Your task to perform on an android device: turn on translation in the chrome app Image 0: 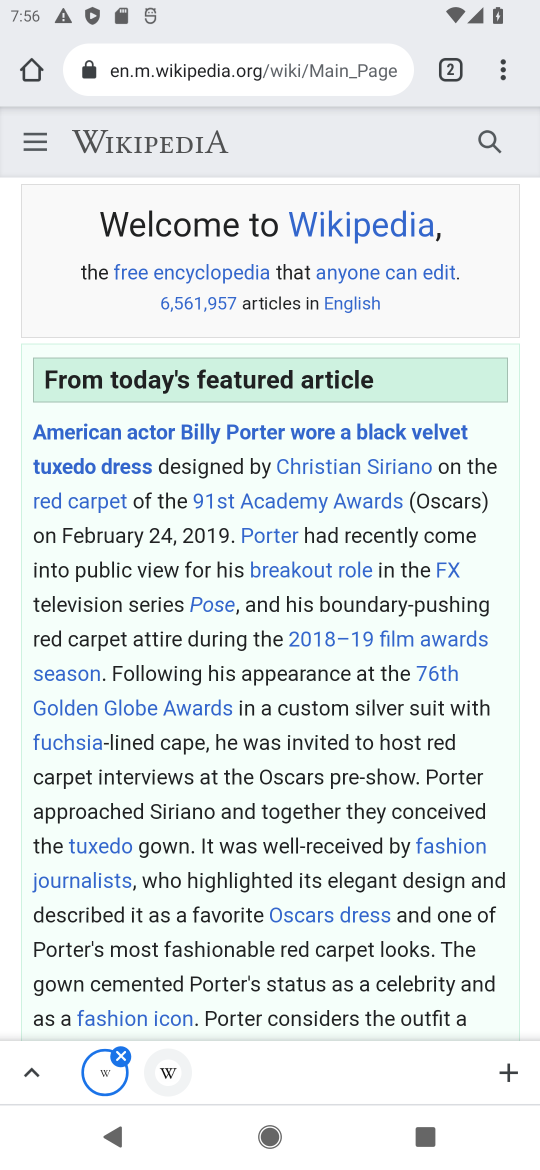
Step 0: click (505, 84)
Your task to perform on an android device: turn on translation in the chrome app Image 1: 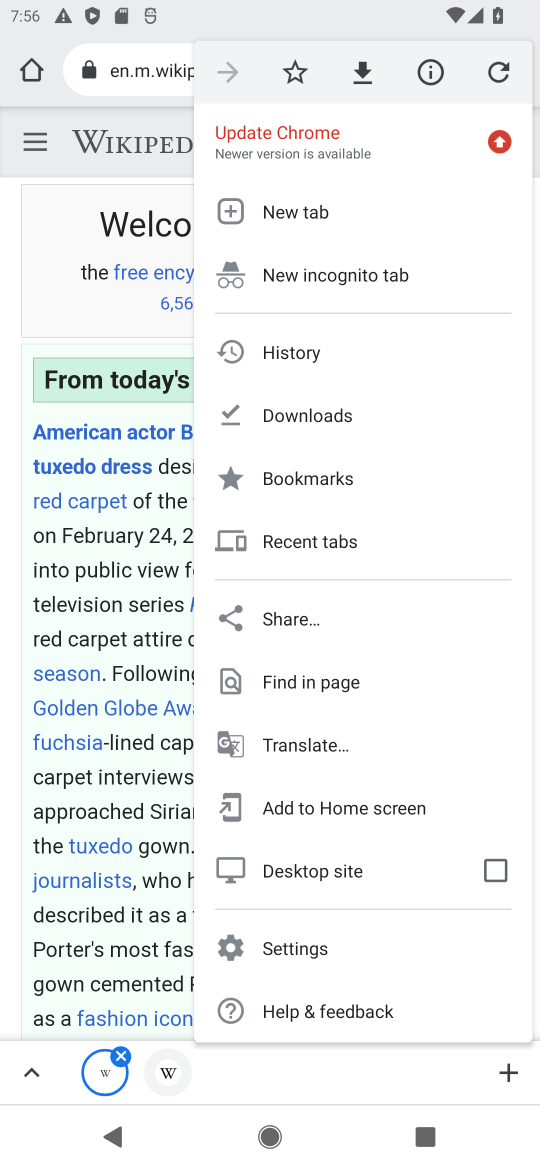
Step 1: click (294, 963)
Your task to perform on an android device: turn on translation in the chrome app Image 2: 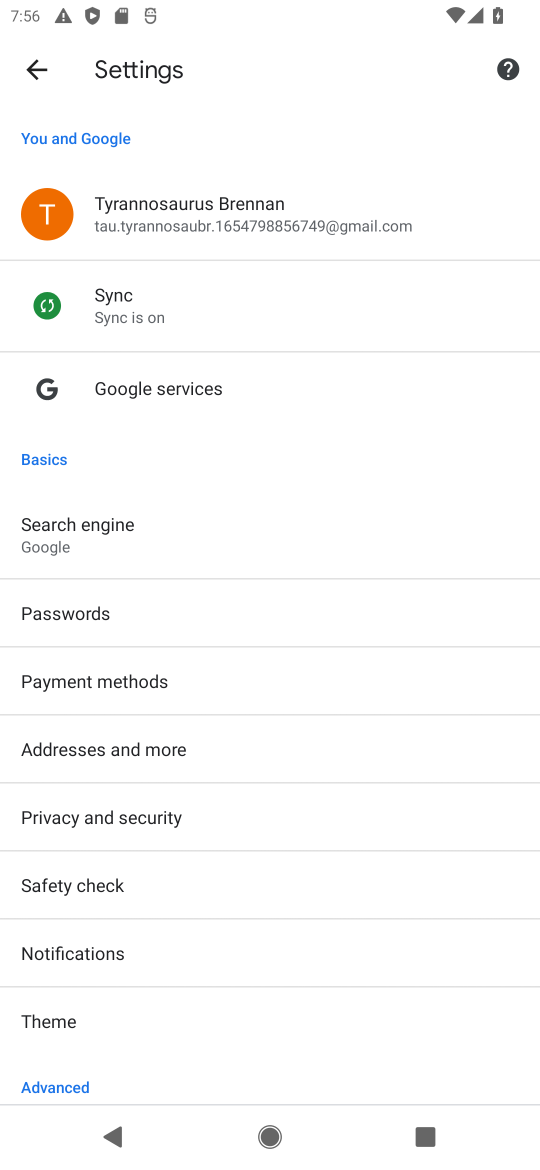
Step 2: drag from (377, 917) to (452, 257)
Your task to perform on an android device: turn on translation in the chrome app Image 3: 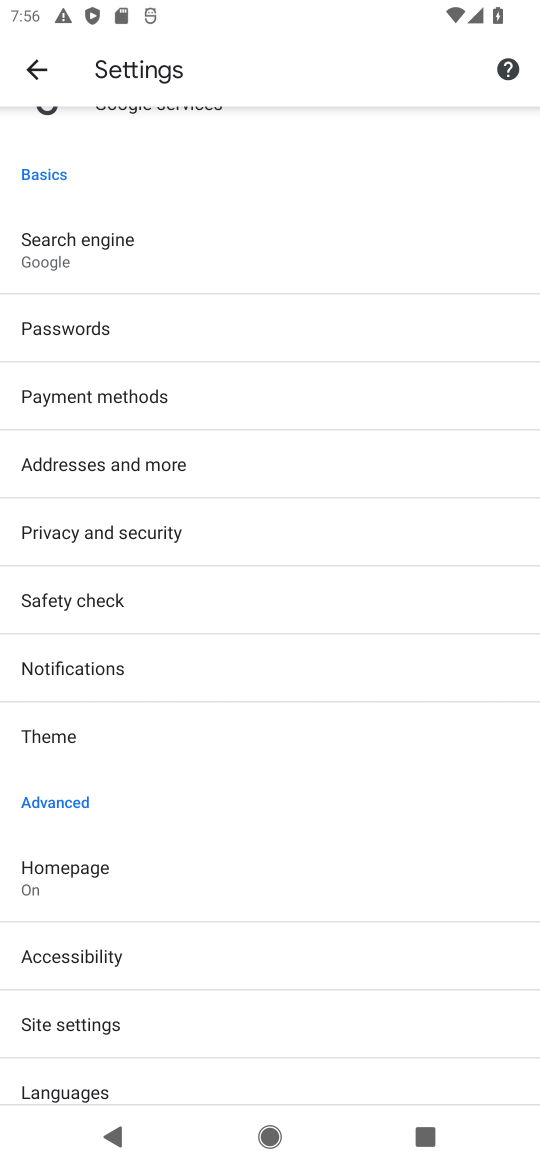
Step 3: click (52, 1097)
Your task to perform on an android device: turn on translation in the chrome app Image 4: 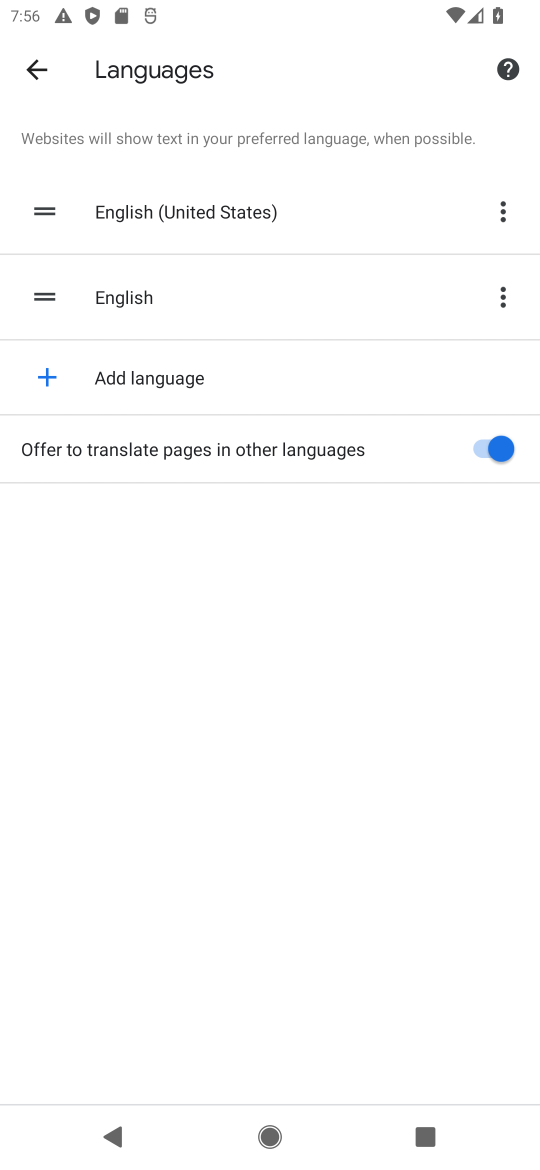
Step 4: task complete